Your task to perform on an android device: open app "Google Photos" (install if not already installed) Image 0: 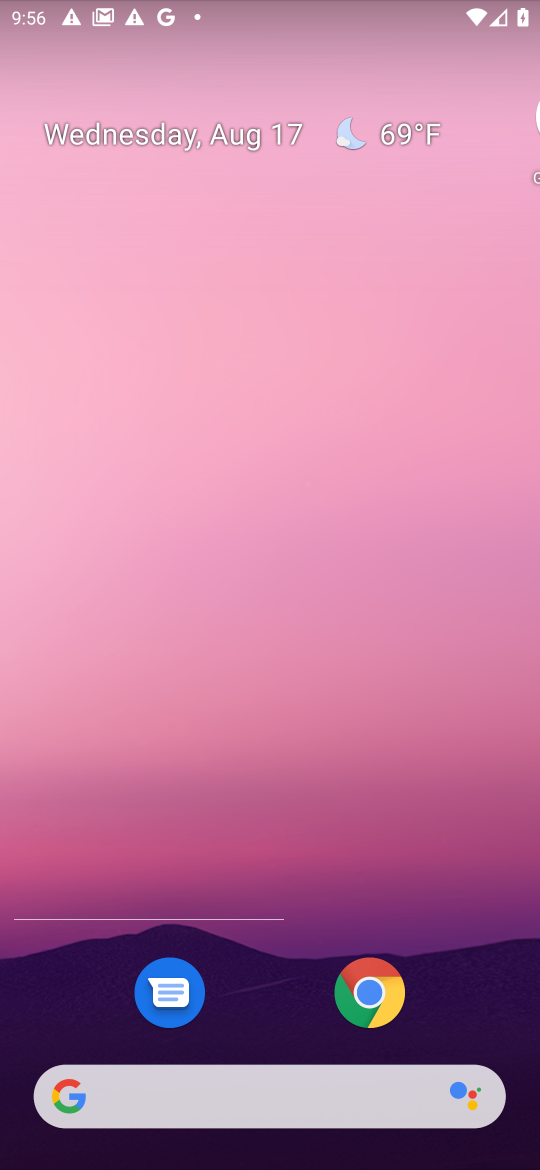
Step 0: click (103, 19)
Your task to perform on an android device: open app "Google Photos" (install if not already installed) Image 1: 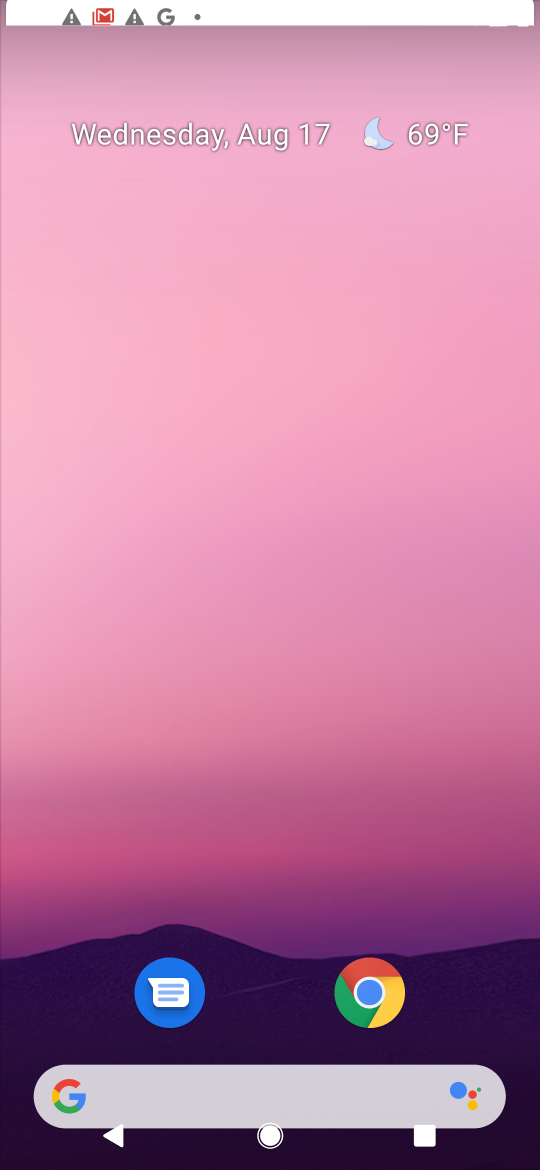
Step 1: drag from (494, 1002) to (131, 23)
Your task to perform on an android device: open app "Google Photos" (install if not already installed) Image 2: 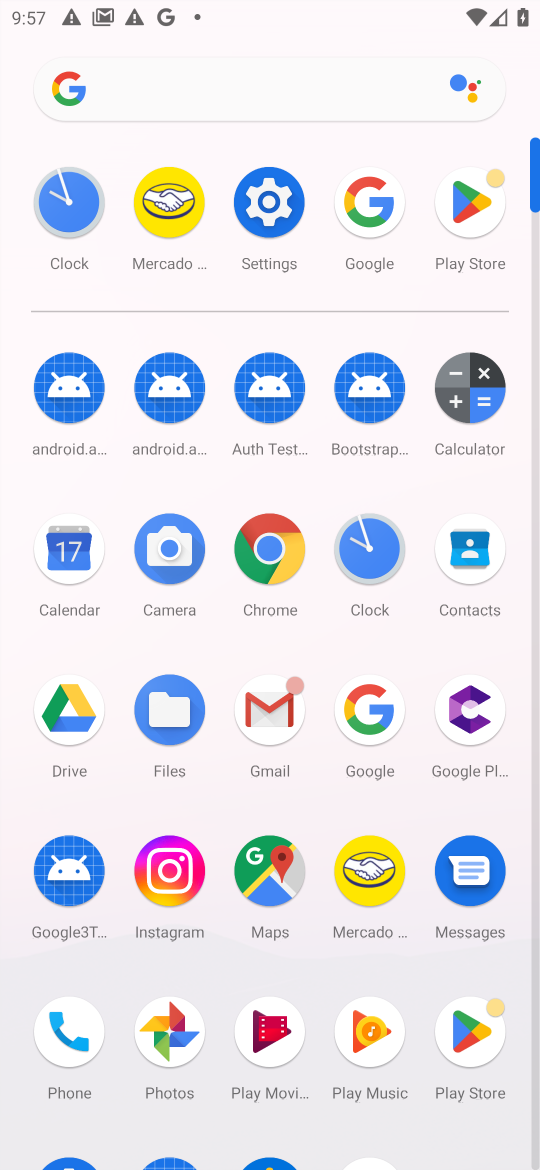
Step 2: click (487, 1011)
Your task to perform on an android device: open app "Google Photos" (install if not already installed) Image 3: 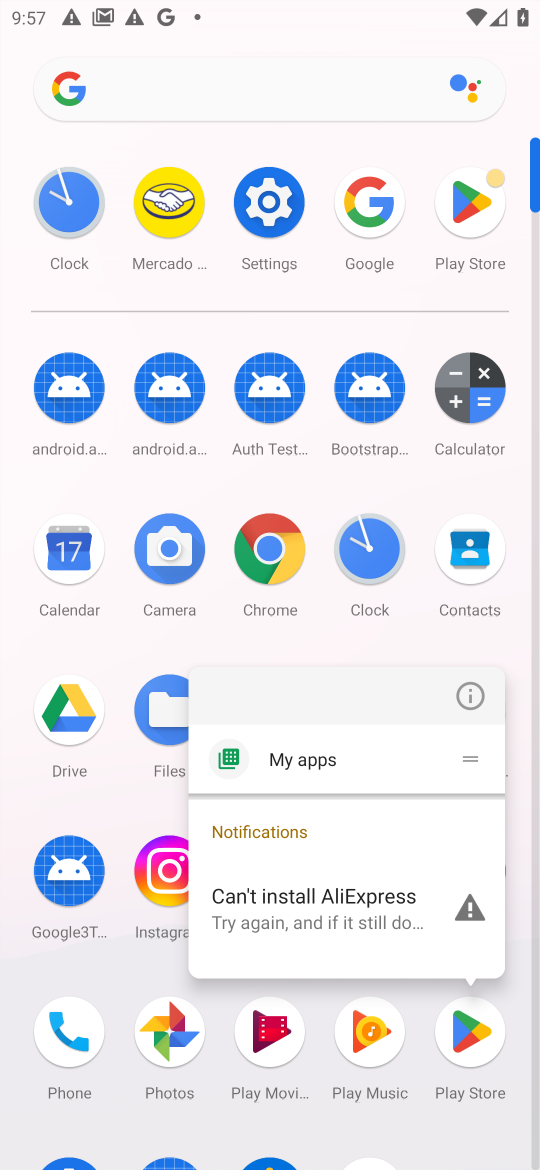
Step 3: click (487, 1011)
Your task to perform on an android device: open app "Google Photos" (install if not already installed) Image 4: 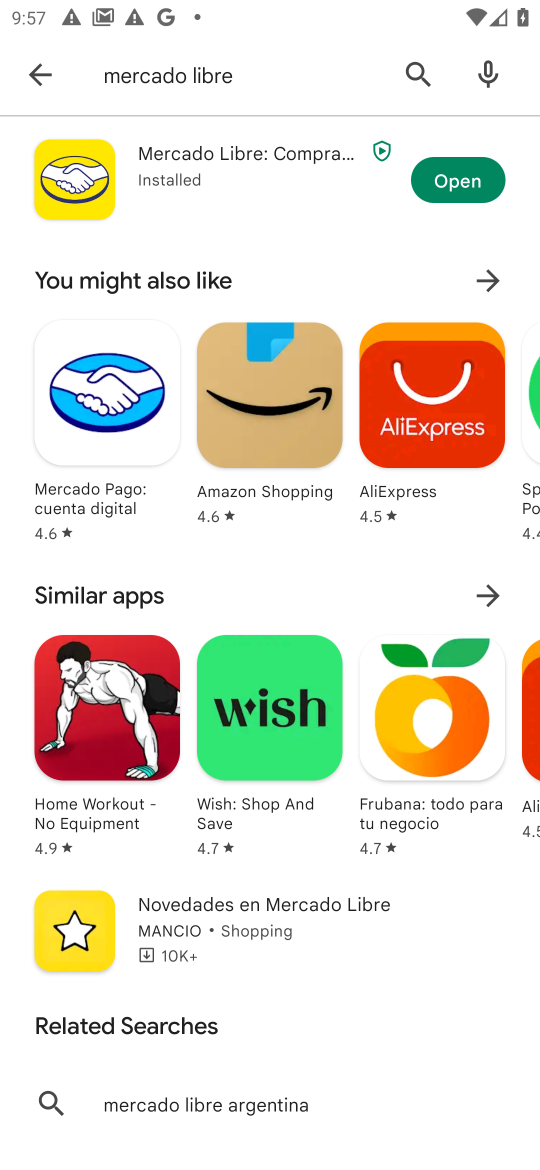
Step 4: press back button
Your task to perform on an android device: open app "Google Photos" (install if not already installed) Image 5: 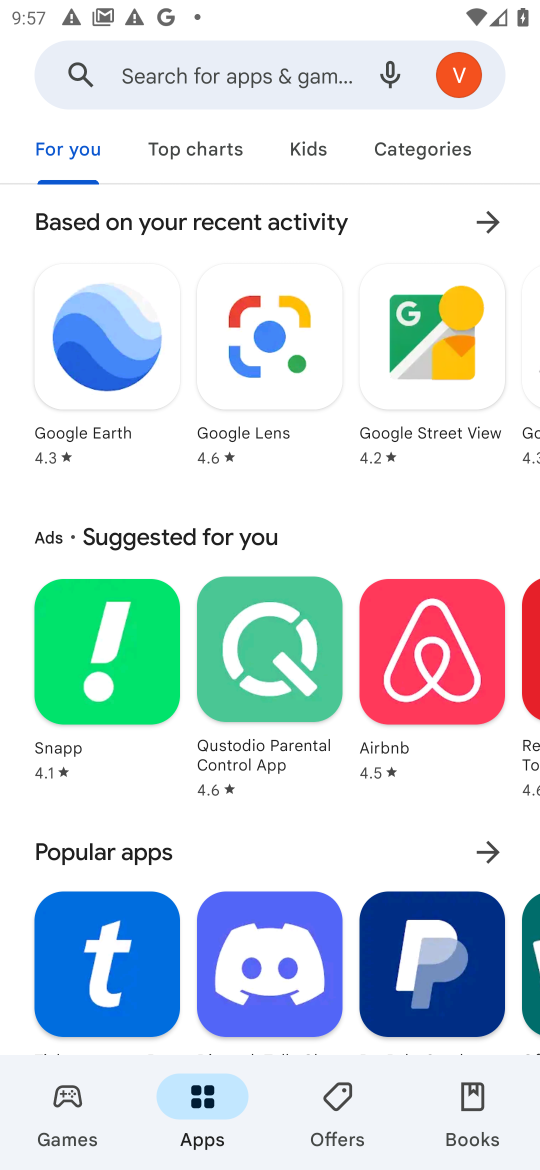
Step 5: click (207, 76)
Your task to perform on an android device: open app "Google Photos" (install if not already installed) Image 6: 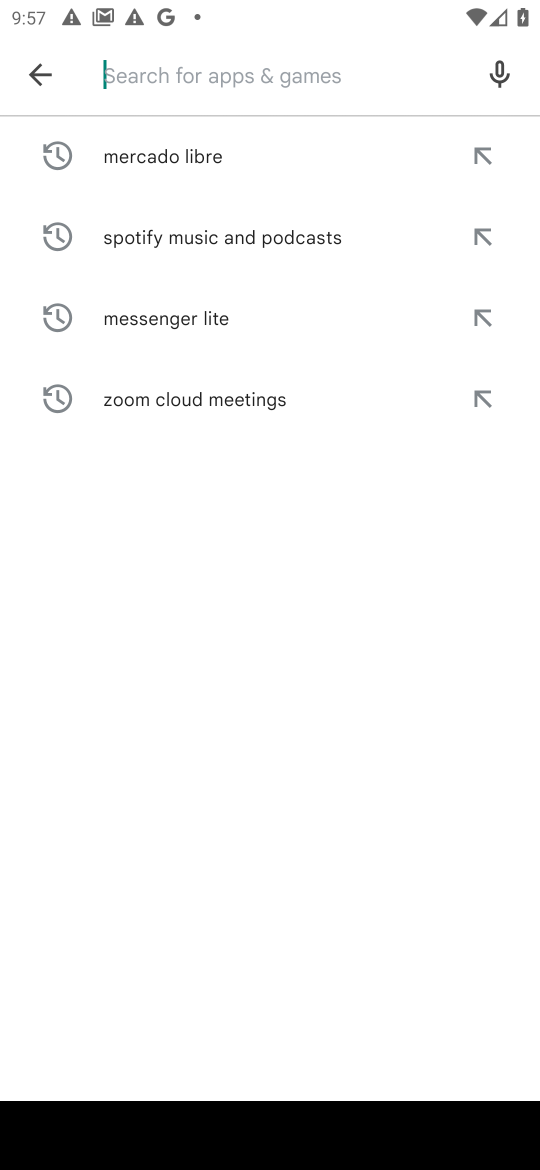
Step 6: type "Google Photos"
Your task to perform on an android device: open app "Google Photos" (install if not already installed) Image 7: 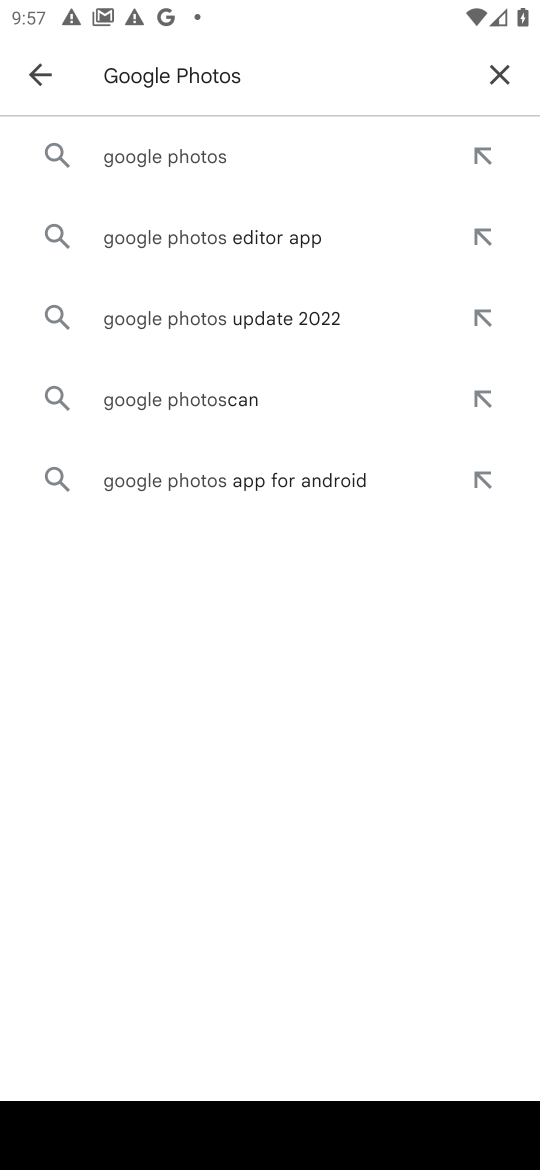
Step 7: click (174, 159)
Your task to perform on an android device: open app "Google Photos" (install if not already installed) Image 8: 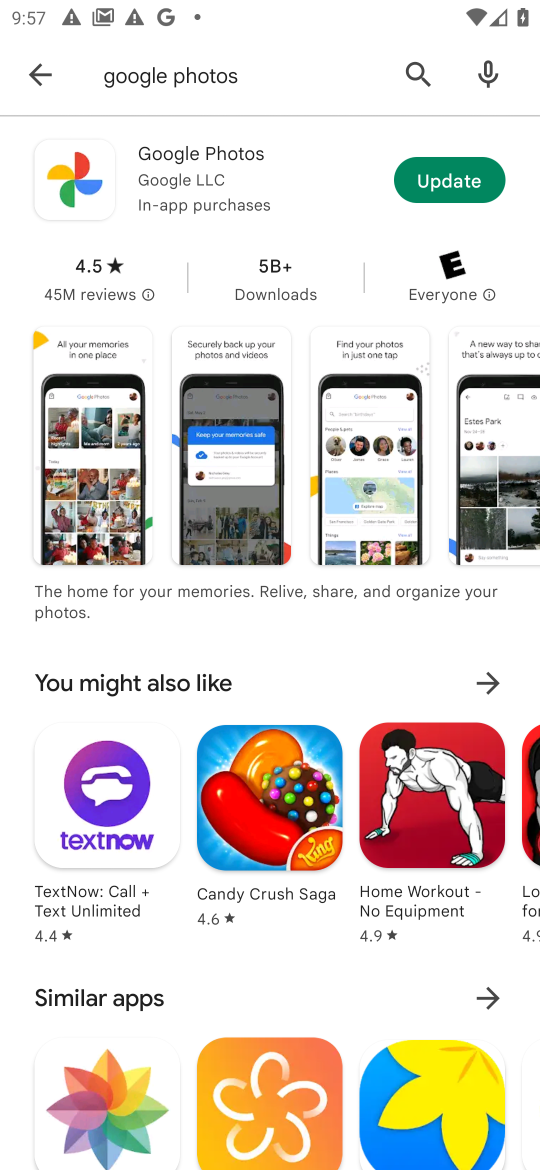
Step 8: click (444, 183)
Your task to perform on an android device: open app "Google Photos" (install if not already installed) Image 9: 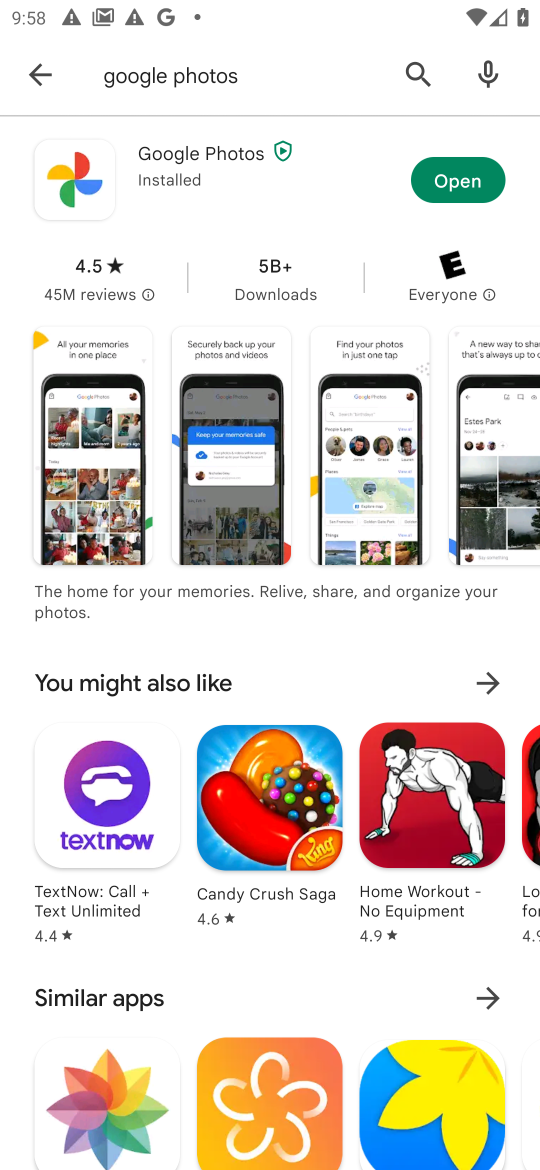
Step 9: click (444, 183)
Your task to perform on an android device: open app "Google Photos" (install if not already installed) Image 10: 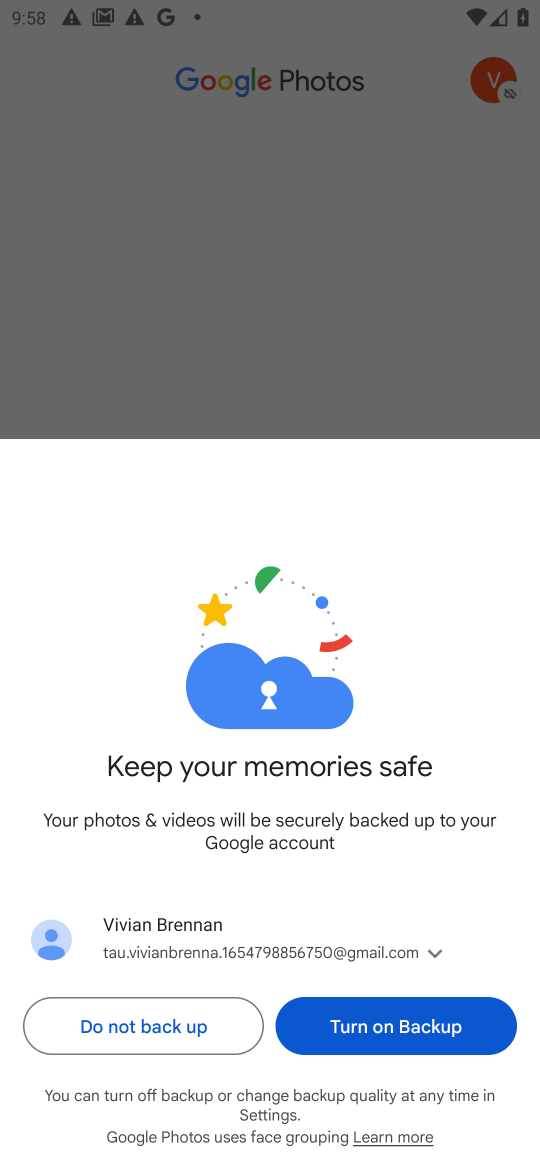
Step 10: task complete